Your task to perform on an android device: check data usage Image 0: 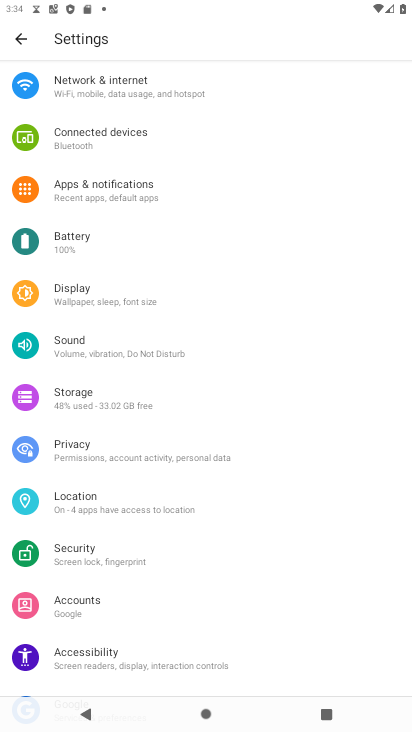
Step 0: click (87, 95)
Your task to perform on an android device: check data usage Image 1: 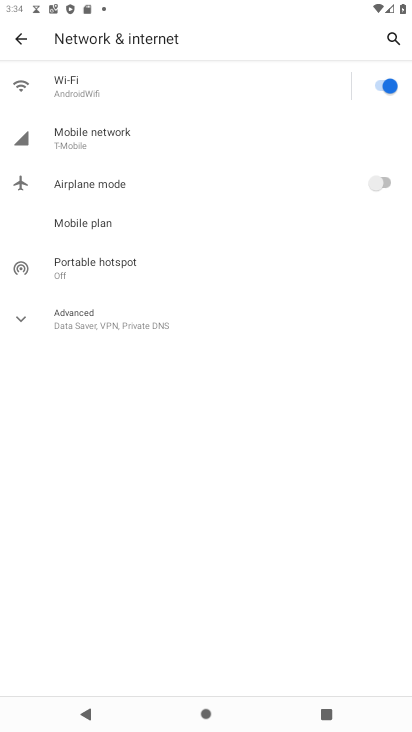
Step 1: click (101, 131)
Your task to perform on an android device: check data usage Image 2: 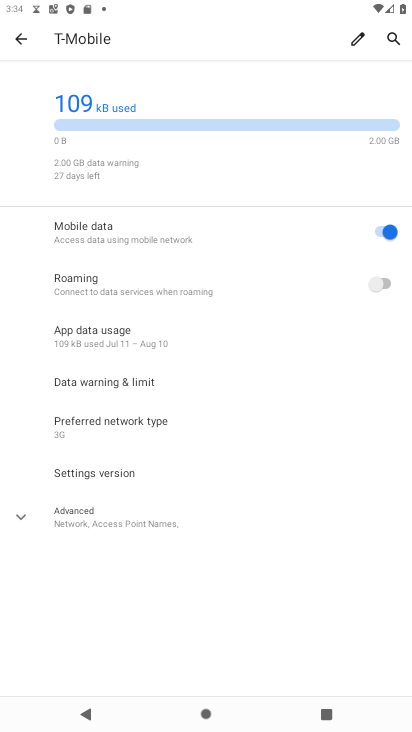
Step 2: task complete